Your task to perform on an android device: Open Maps and search for coffee Image 0: 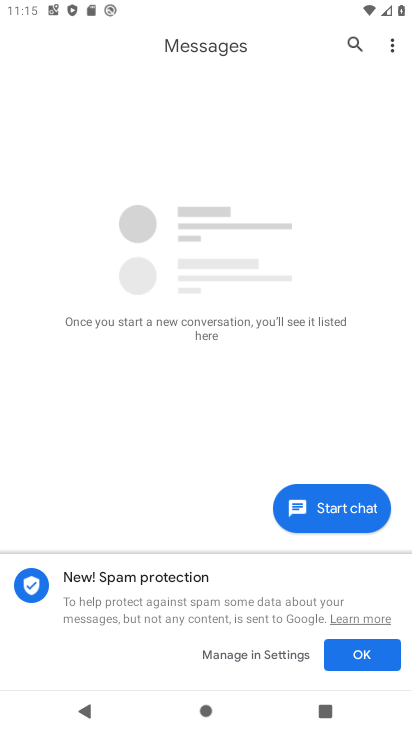
Step 0: click (156, 593)
Your task to perform on an android device: Open Maps and search for coffee Image 1: 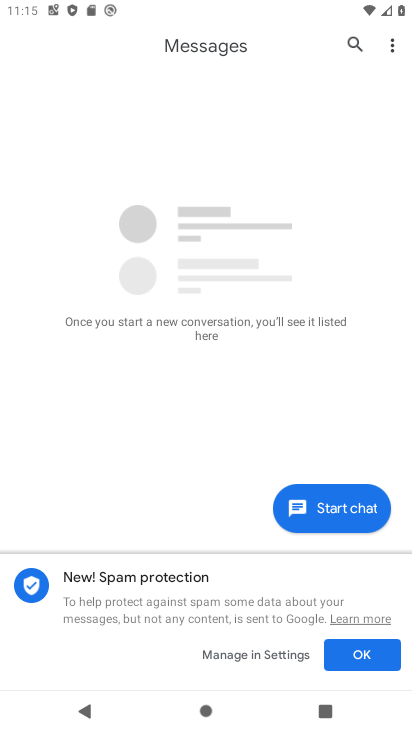
Step 1: press home button
Your task to perform on an android device: Open Maps and search for coffee Image 2: 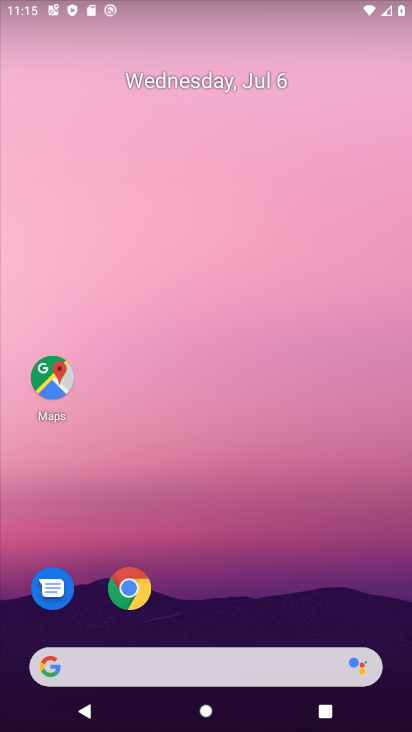
Step 2: drag from (193, 596) to (220, 187)
Your task to perform on an android device: Open Maps and search for coffee Image 3: 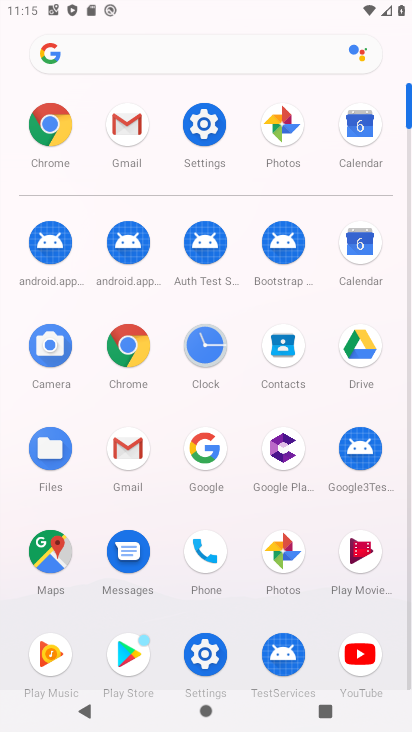
Step 3: click (43, 543)
Your task to perform on an android device: Open Maps and search for coffee Image 4: 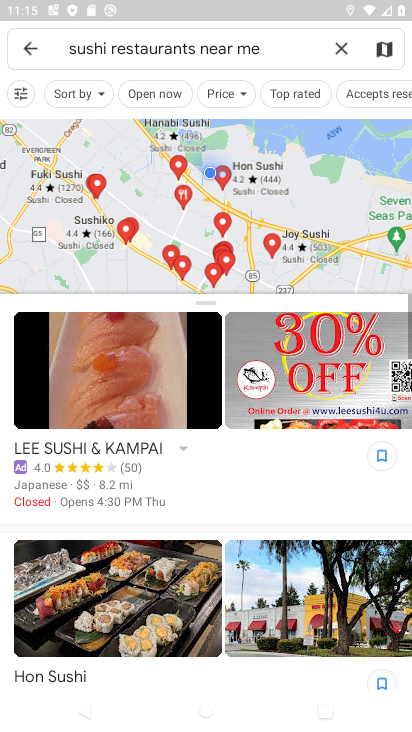
Step 4: click (338, 43)
Your task to perform on an android device: Open Maps and search for coffee Image 5: 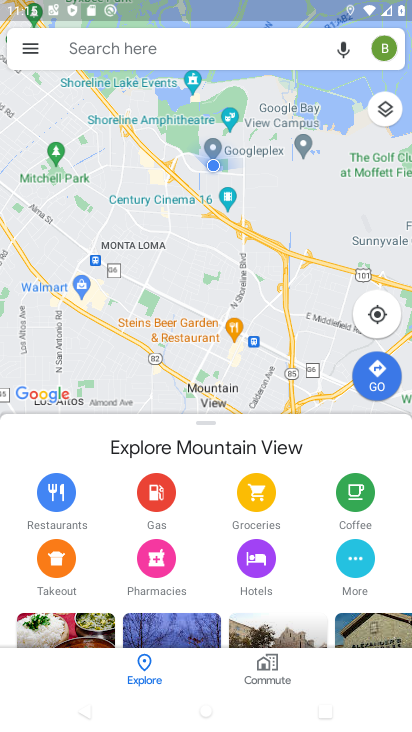
Step 5: click (223, 53)
Your task to perform on an android device: Open Maps and search for coffee Image 6: 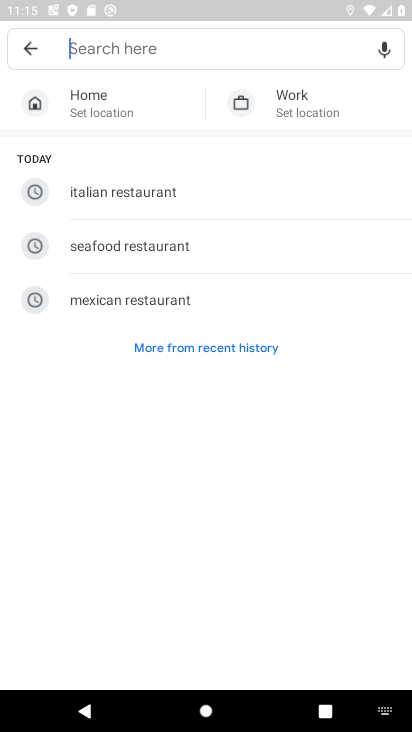
Step 6: click (176, 37)
Your task to perform on an android device: Open Maps and search for coffee Image 7: 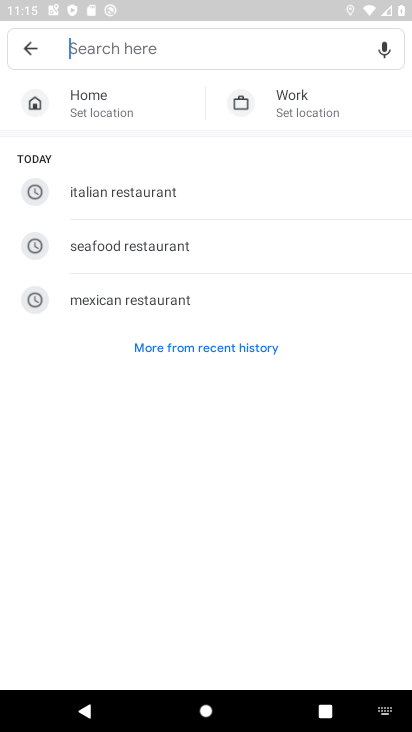
Step 7: type " coffee "
Your task to perform on an android device: Open Maps and search for coffee Image 8: 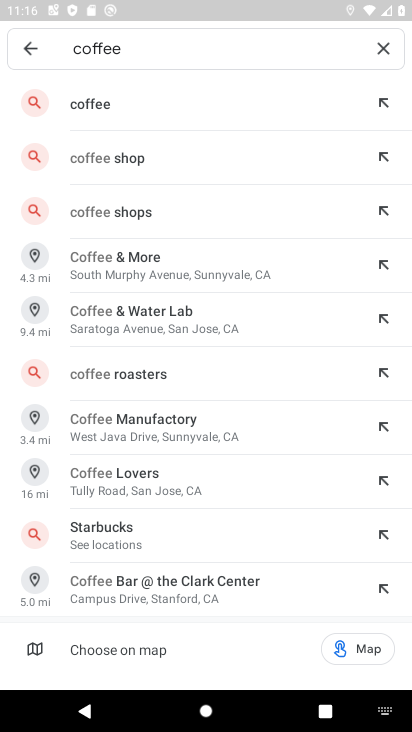
Step 8: click (133, 104)
Your task to perform on an android device: Open Maps and search for coffee Image 9: 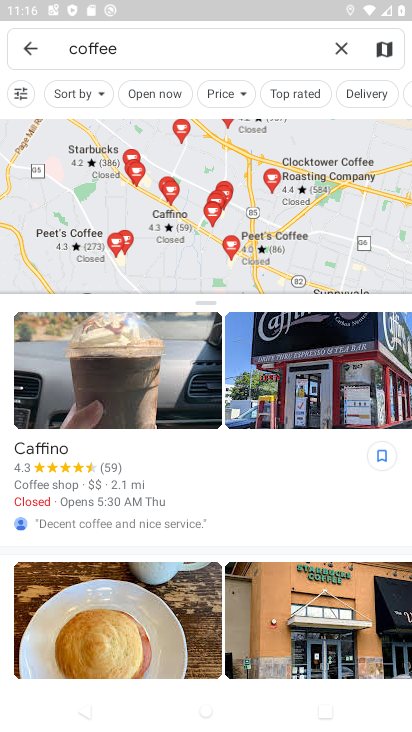
Step 9: task complete